Your task to perform on an android device: Open calendar and show me the third week of next month Image 0: 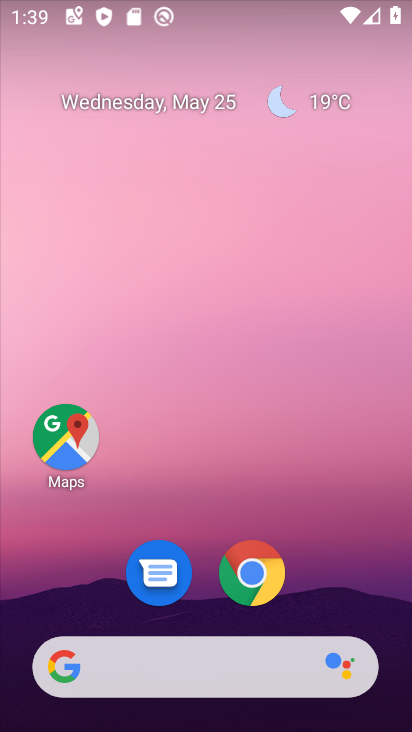
Step 0: drag from (384, 614) to (243, 11)
Your task to perform on an android device: Open calendar and show me the third week of next month Image 1: 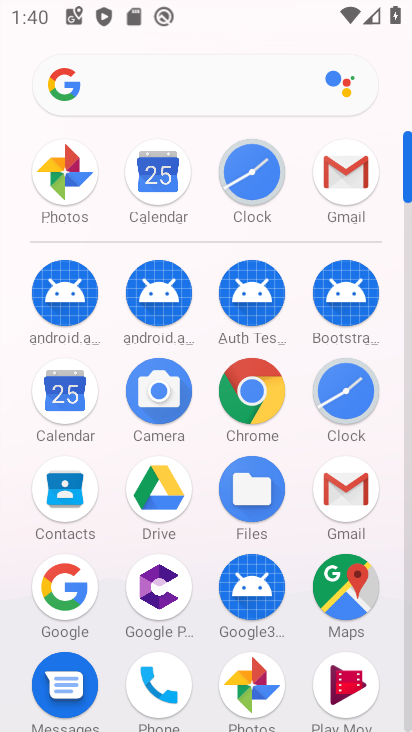
Step 1: click (61, 391)
Your task to perform on an android device: Open calendar and show me the third week of next month Image 2: 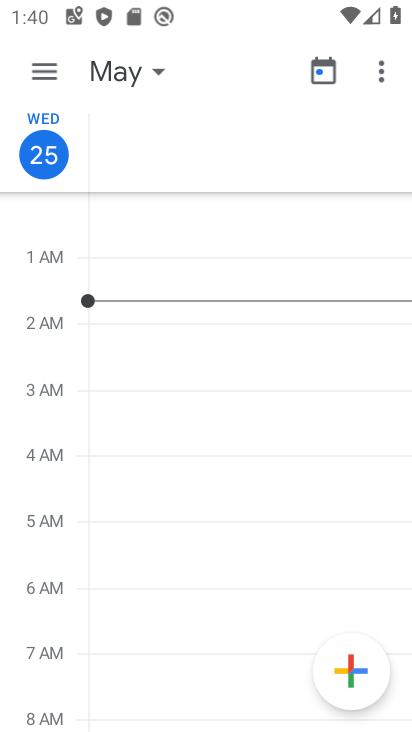
Step 2: click (41, 65)
Your task to perform on an android device: Open calendar and show me the third week of next month Image 3: 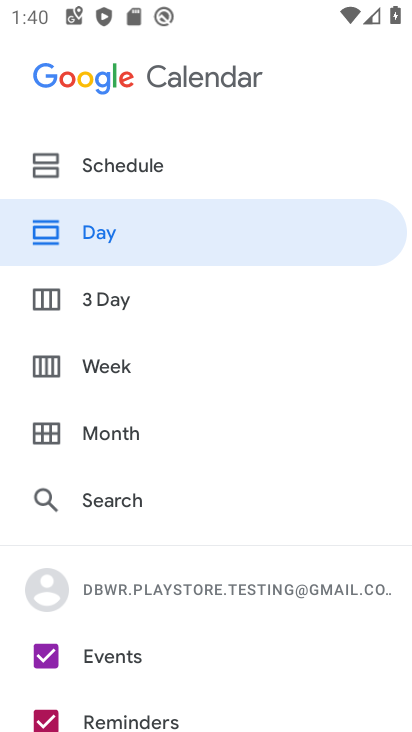
Step 3: click (116, 369)
Your task to perform on an android device: Open calendar and show me the third week of next month Image 4: 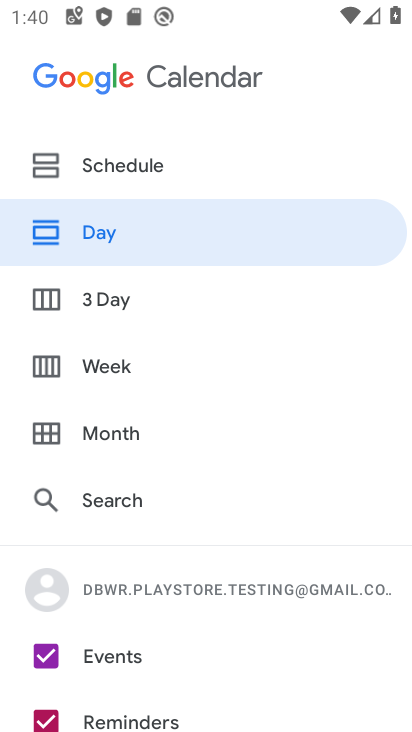
Step 4: click (109, 361)
Your task to perform on an android device: Open calendar and show me the third week of next month Image 5: 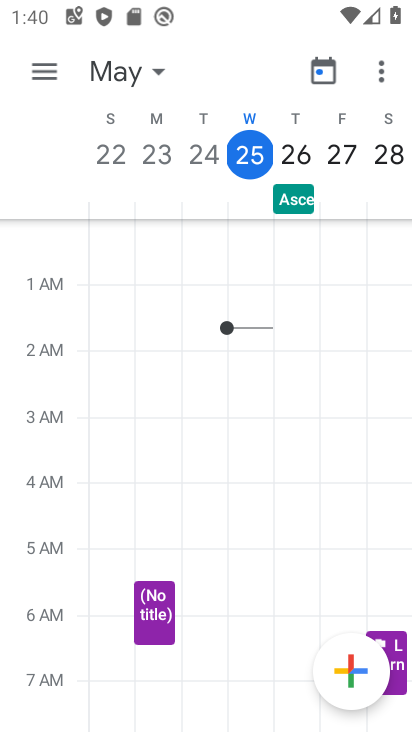
Step 5: click (157, 75)
Your task to perform on an android device: Open calendar and show me the third week of next month Image 6: 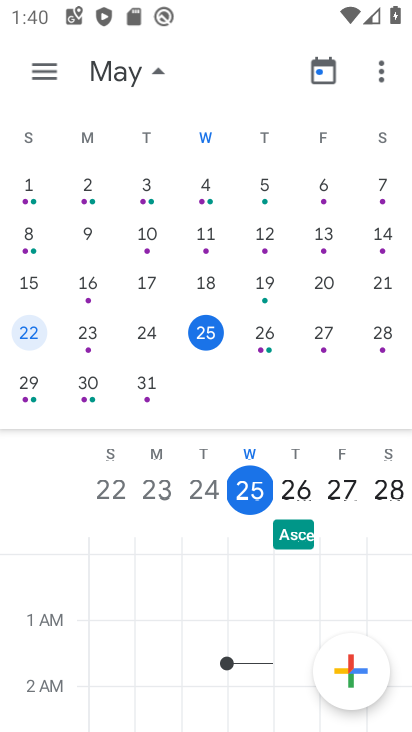
Step 6: drag from (373, 283) to (20, 204)
Your task to perform on an android device: Open calendar and show me the third week of next month Image 7: 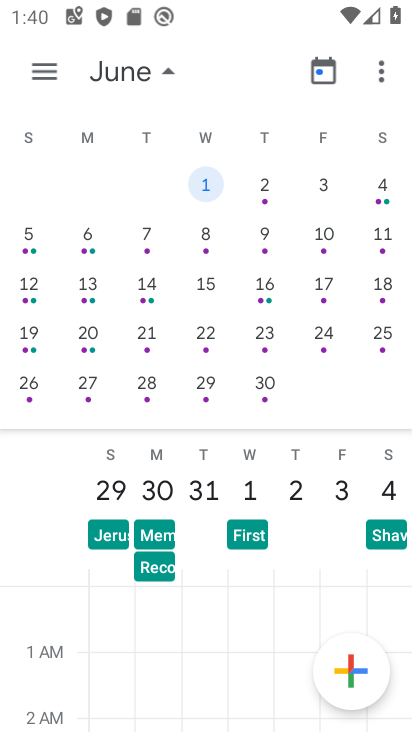
Step 7: click (28, 329)
Your task to perform on an android device: Open calendar and show me the third week of next month Image 8: 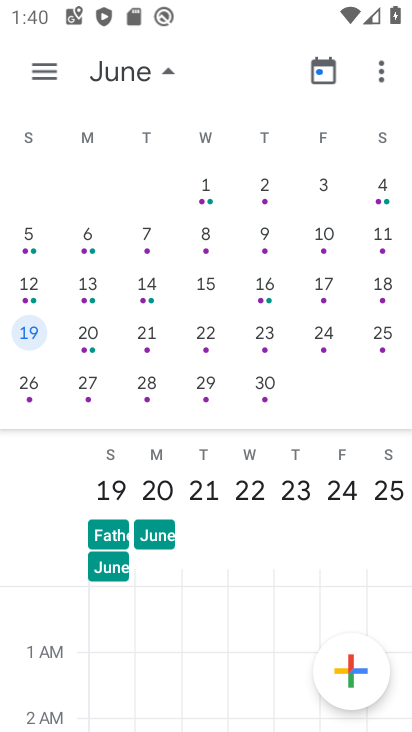
Step 8: task complete